Your task to perform on an android device: Open Google Chrome and open the bookmarks view Image 0: 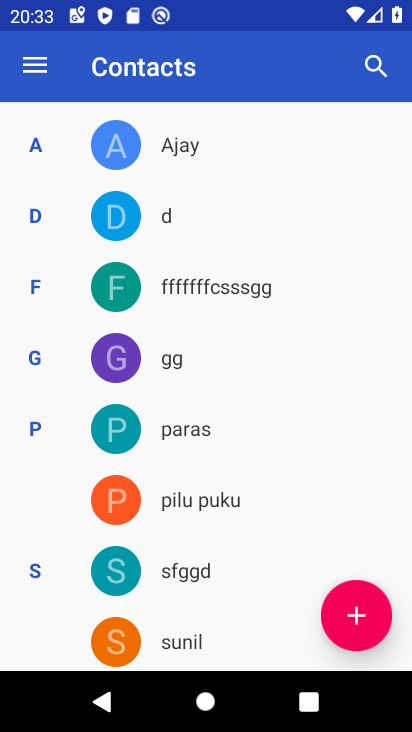
Step 0: press home button
Your task to perform on an android device: Open Google Chrome and open the bookmarks view Image 1: 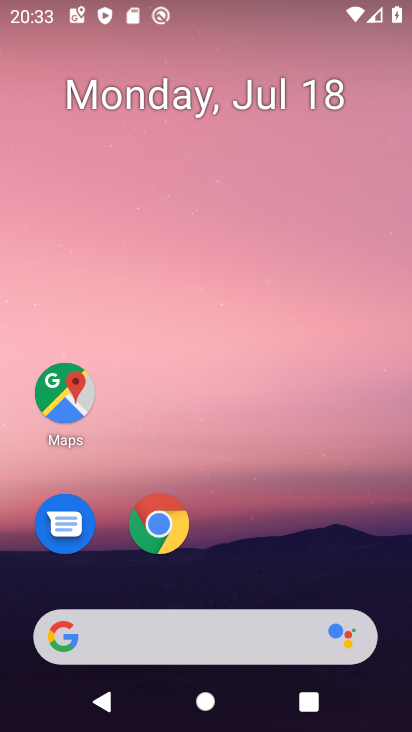
Step 1: click (169, 526)
Your task to perform on an android device: Open Google Chrome and open the bookmarks view Image 2: 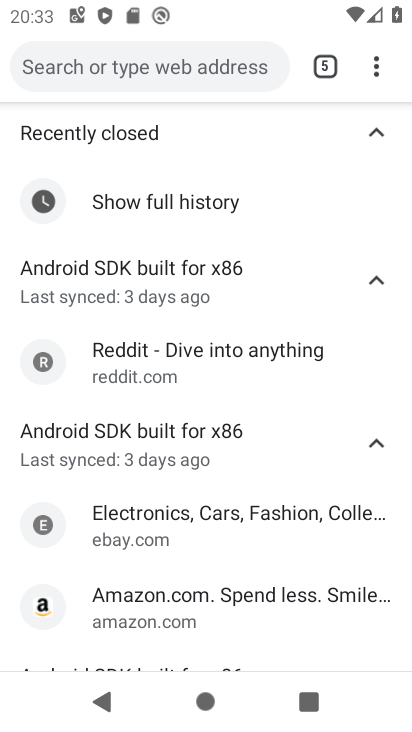
Step 2: click (372, 70)
Your task to perform on an android device: Open Google Chrome and open the bookmarks view Image 3: 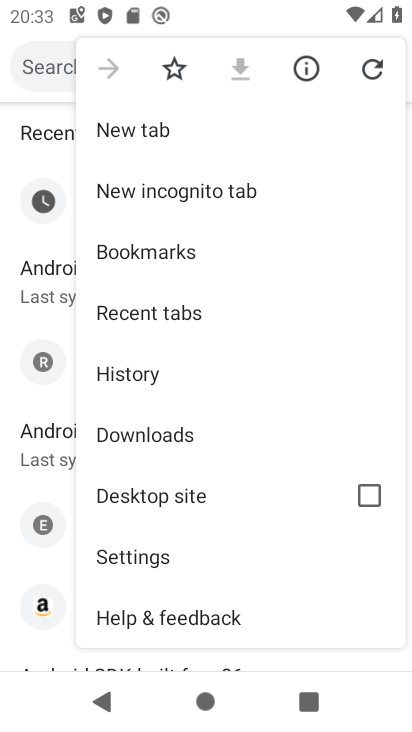
Step 3: click (178, 254)
Your task to perform on an android device: Open Google Chrome and open the bookmarks view Image 4: 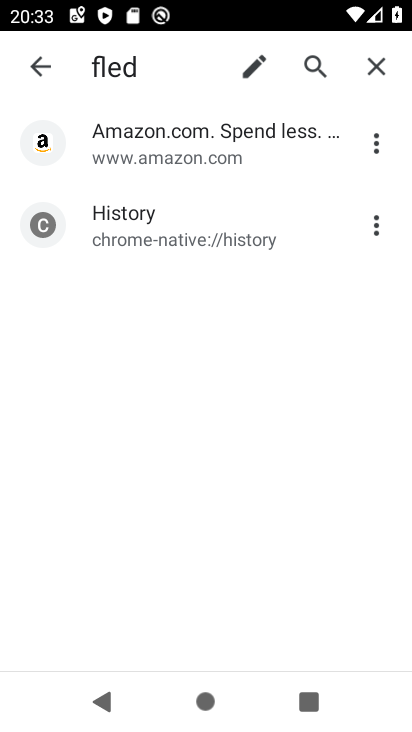
Step 4: task complete